Your task to perform on an android device: turn on location history Image 0: 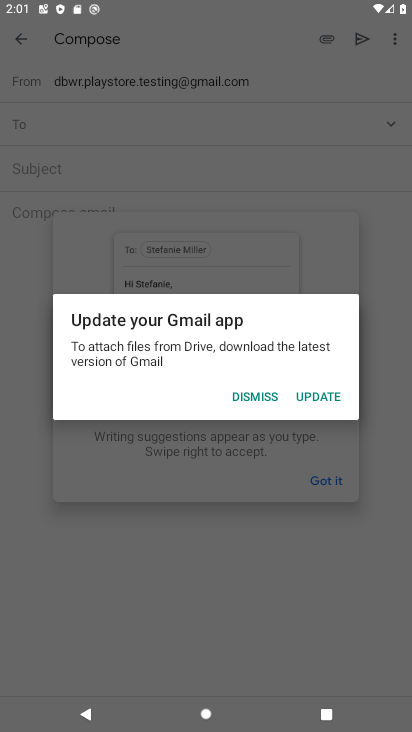
Step 0: press home button
Your task to perform on an android device: turn on location history Image 1: 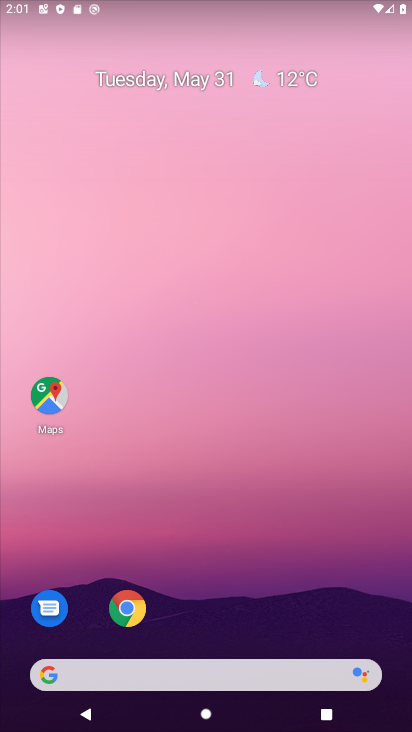
Step 1: drag from (347, 620) to (365, 139)
Your task to perform on an android device: turn on location history Image 2: 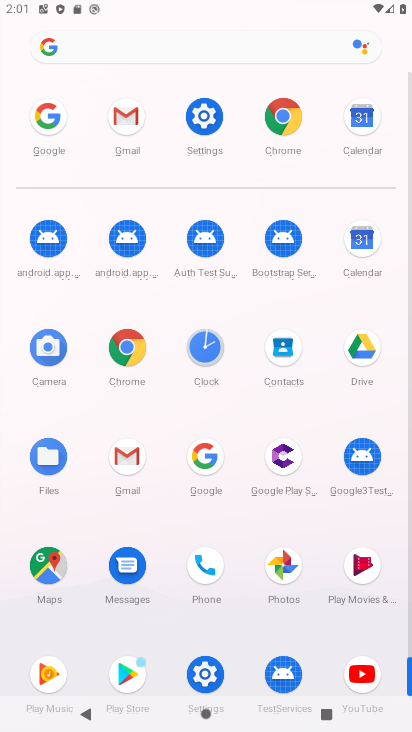
Step 2: click (211, 666)
Your task to perform on an android device: turn on location history Image 3: 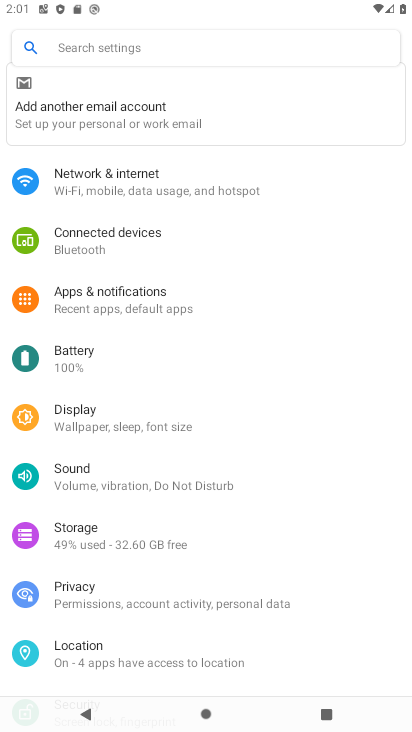
Step 3: click (138, 643)
Your task to perform on an android device: turn on location history Image 4: 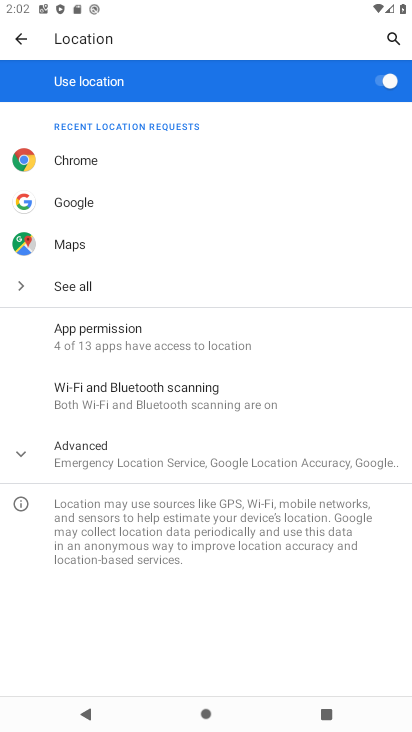
Step 4: click (201, 456)
Your task to perform on an android device: turn on location history Image 5: 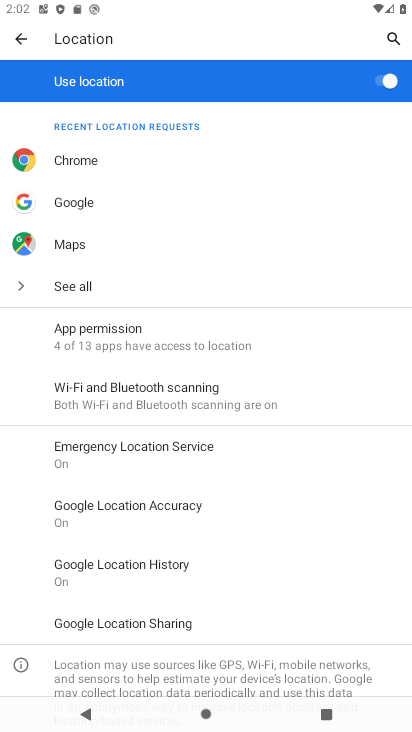
Step 5: click (172, 562)
Your task to perform on an android device: turn on location history Image 6: 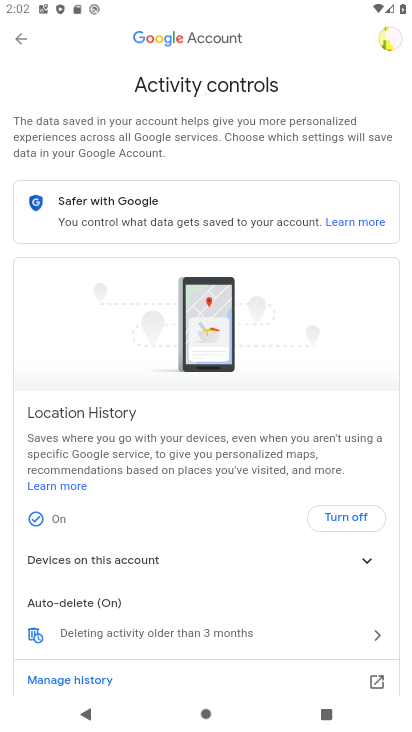
Step 6: task complete